Your task to perform on an android device: Show me the alarms in the clock app Image 0: 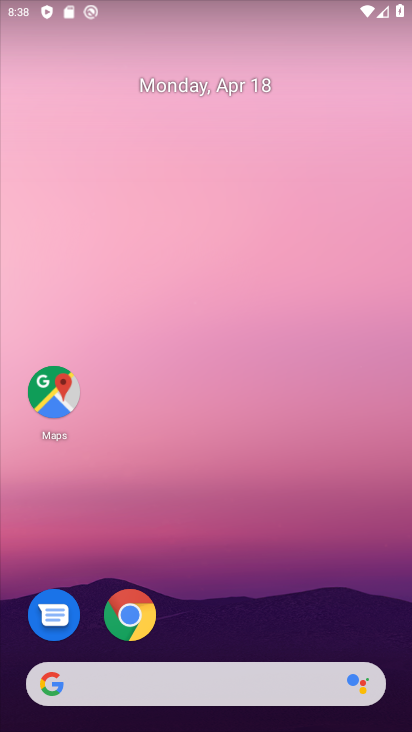
Step 0: drag from (355, 571) to (354, 93)
Your task to perform on an android device: Show me the alarms in the clock app Image 1: 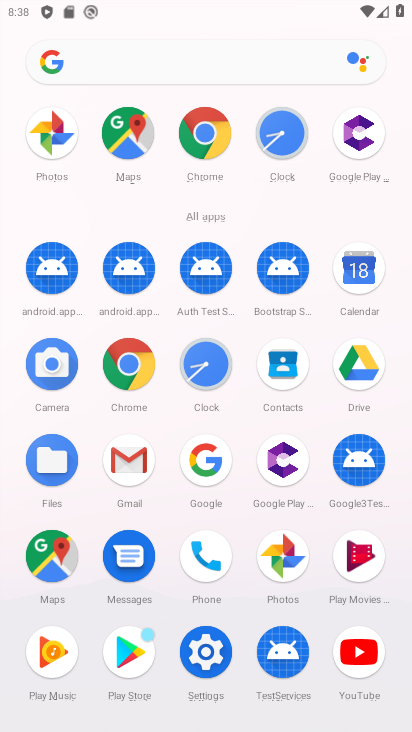
Step 1: click (291, 146)
Your task to perform on an android device: Show me the alarms in the clock app Image 2: 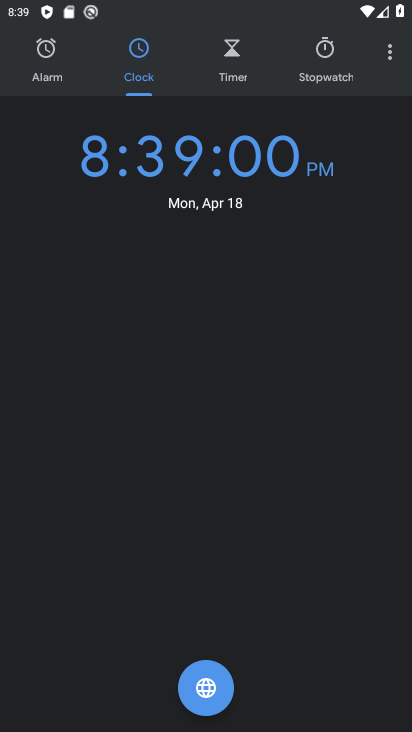
Step 2: click (49, 48)
Your task to perform on an android device: Show me the alarms in the clock app Image 3: 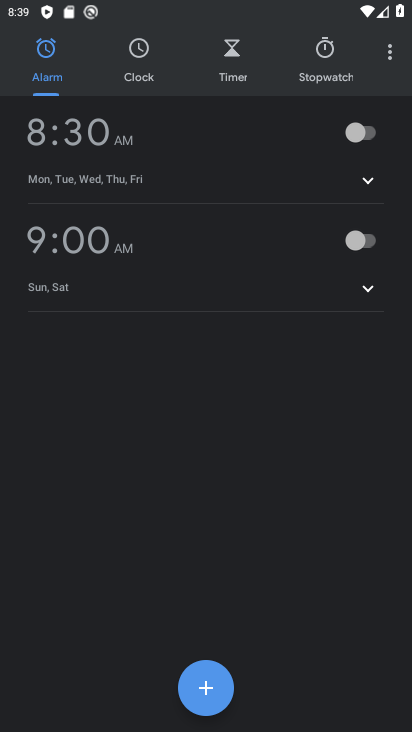
Step 3: task complete